Your task to perform on an android device: toggle translation in the chrome app Image 0: 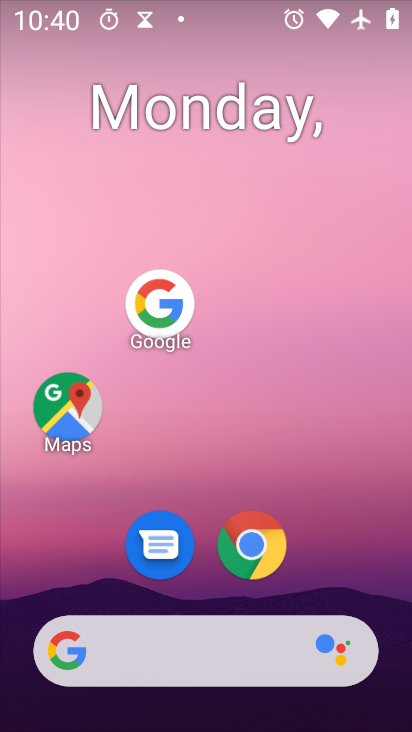
Step 0: click (245, 548)
Your task to perform on an android device: toggle translation in the chrome app Image 1: 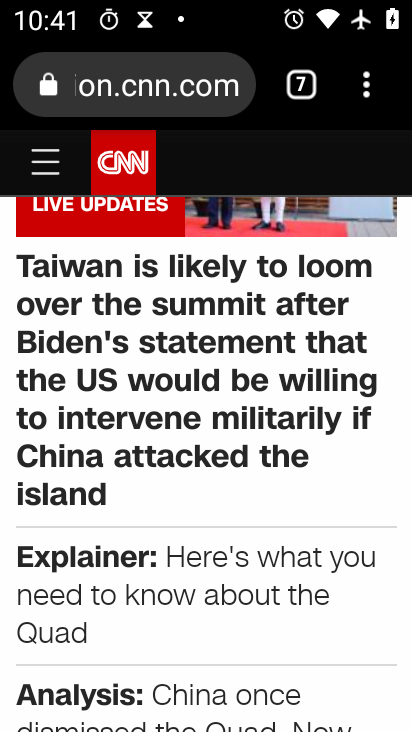
Step 1: drag from (370, 86) to (208, 601)
Your task to perform on an android device: toggle translation in the chrome app Image 2: 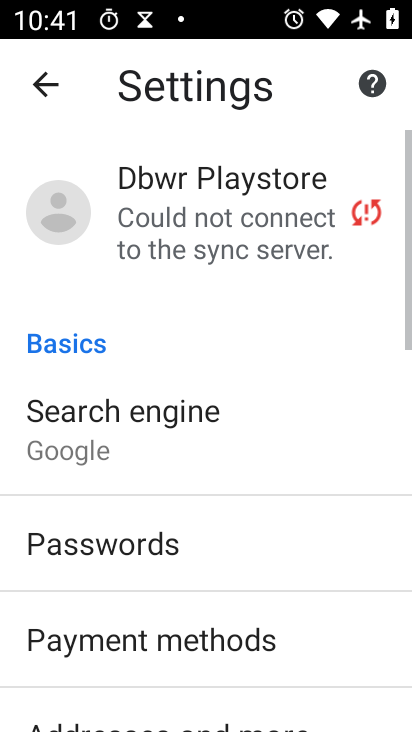
Step 2: drag from (210, 634) to (306, 44)
Your task to perform on an android device: toggle translation in the chrome app Image 3: 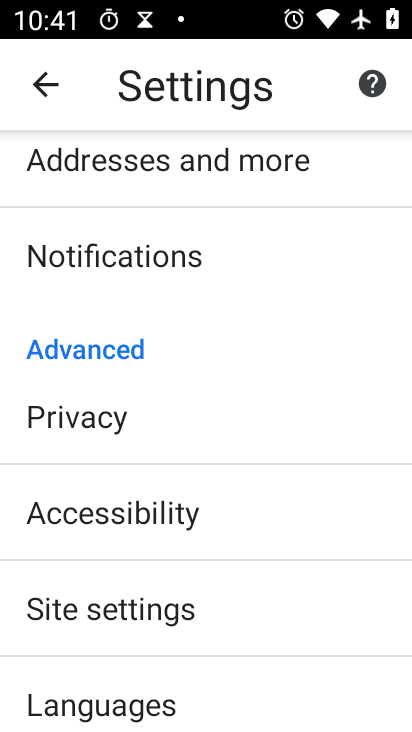
Step 3: drag from (218, 626) to (232, 307)
Your task to perform on an android device: toggle translation in the chrome app Image 4: 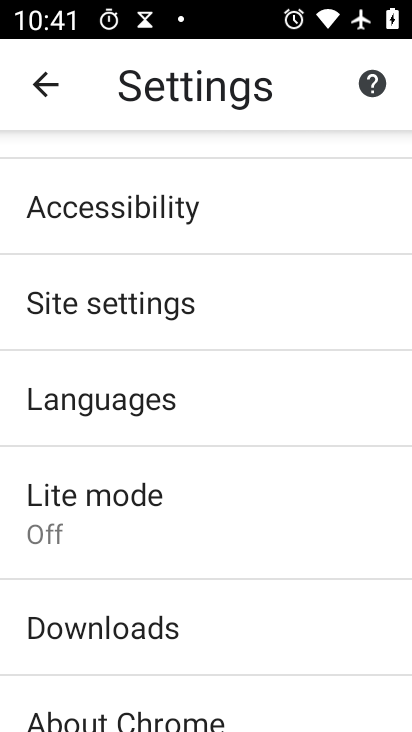
Step 4: click (112, 402)
Your task to perform on an android device: toggle translation in the chrome app Image 5: 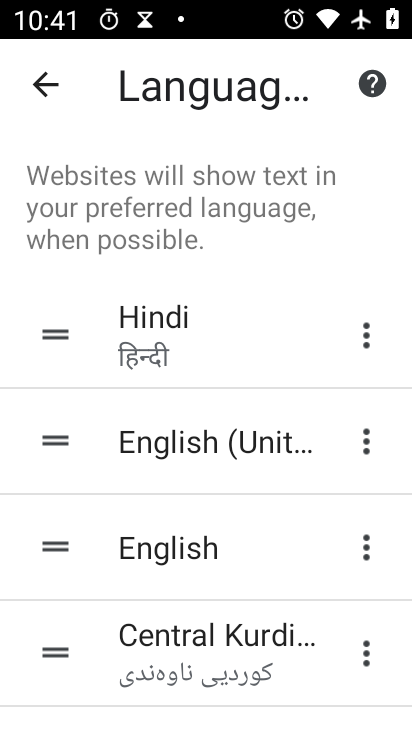
Step 5: drag from (146, 611) to (309, 174)
Your task to perform on an android device: toggle translation in the chrome app Image 6: 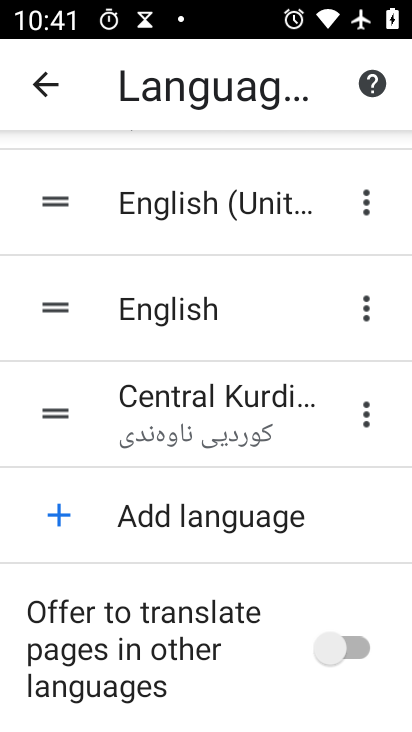
Step 6: click (360, 642)
Your task to perform on an android device: toggle translation in the chrome app Image 7: 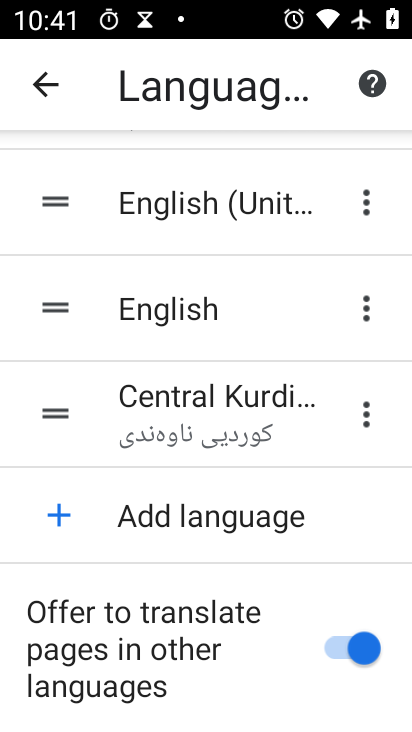
Step 7: task complete